Your task to perform on an android device: turn vacation reply on in the gmail app Image 0: 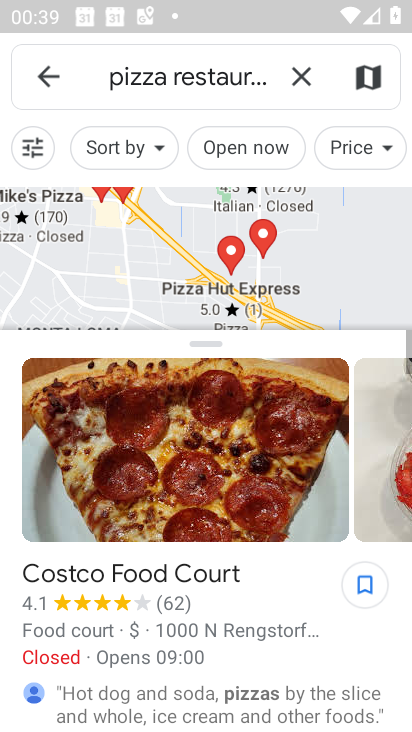
Step 0: press home button
Your task to perform on an android device: turn vacation reply on in the gmail app Image 1: 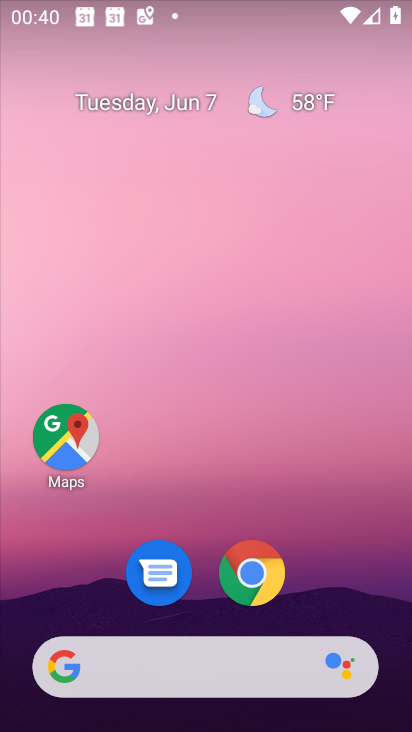
Step 1: drag from (357, 627) to (115, 14)
Your task to perform on an android device: turn vacation reply on in the gmail app Image 2: 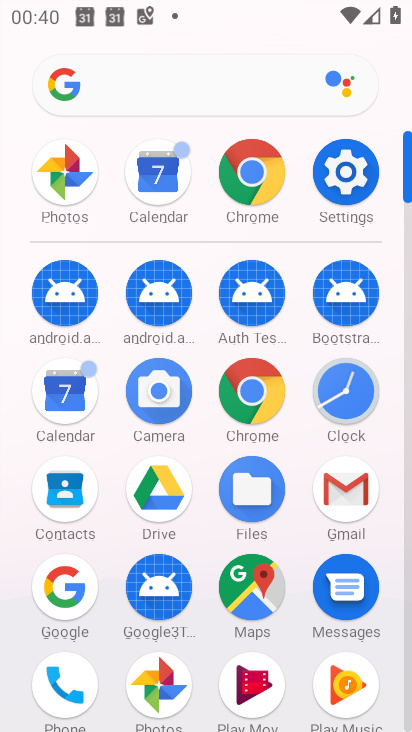
Step 2: click (334, 523)
Your task to perform on an android device: turn vacation reply on in the gmail app Image 3: 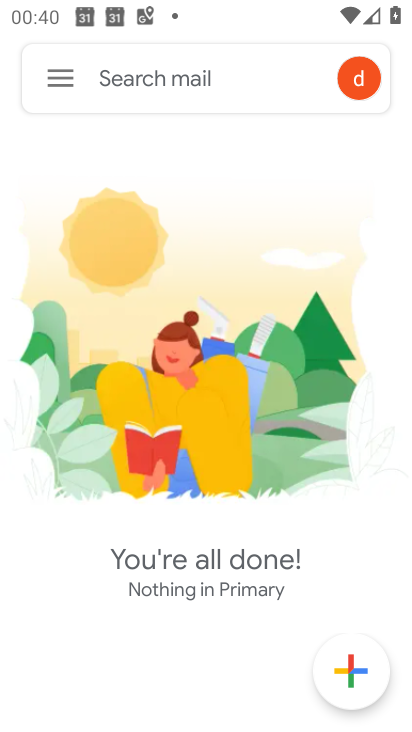
Step 3: click (45, 91)
Your task to perform on an android device: turn vacation reply on in the gmail app Image 4: 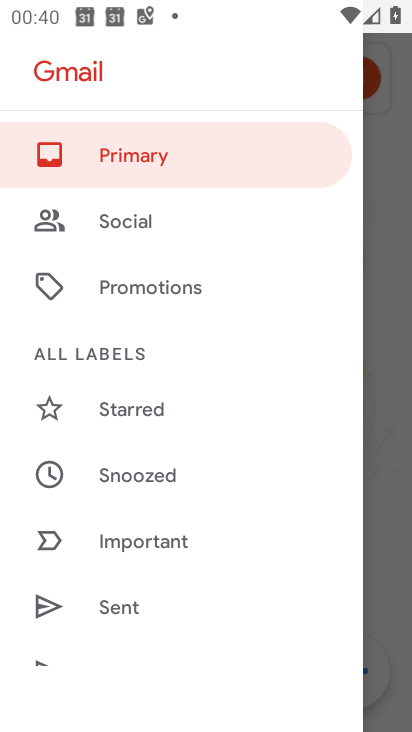
Step 4: drag from (186, 554) to (197, 8)
Your task to perform on an android device: turn vacation reply on in the gmail app Image 5: 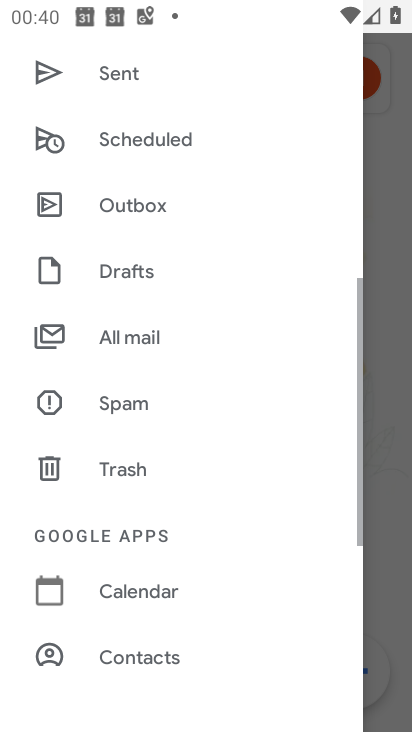
Step 5: drag from (214, 336) to (196, 3)
Your task to perform on an android device: turn vacation reply on in the gmail app Image 6: 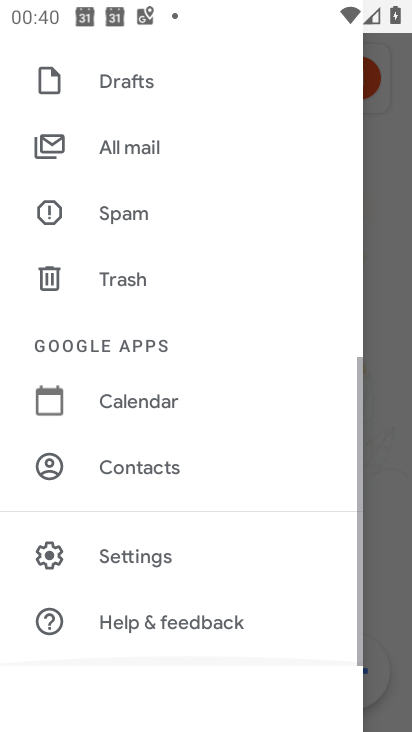
Step 6: click (140, 40)
Your task to perform on an android device: turn vacation reply on in the gmail app Image 7: 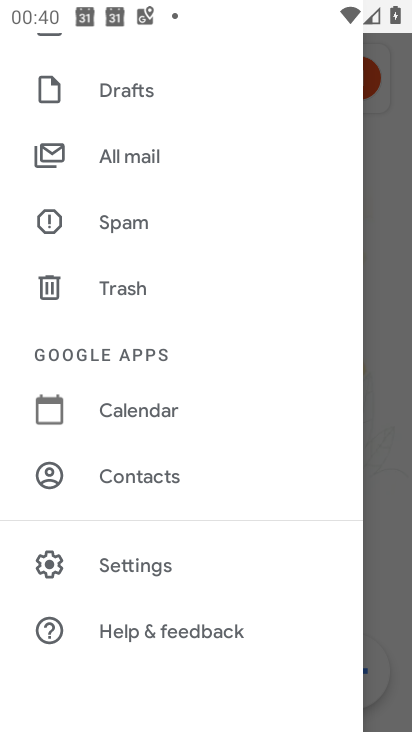
Step 7: click (170, 559)
Your task to perform on an android device: turn vacation reply on in the gmail app Image 8: 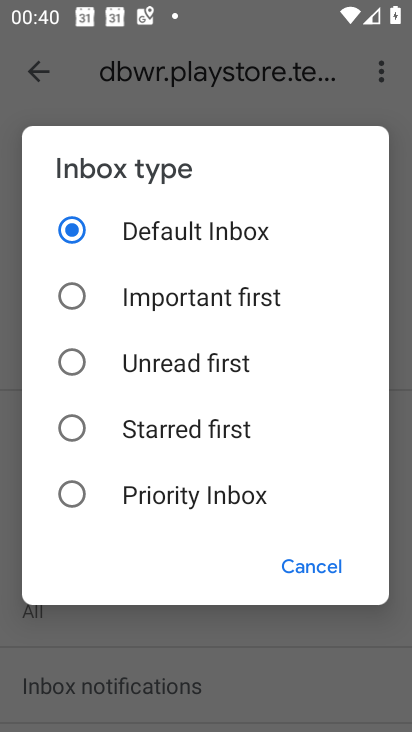
Step 8: click (326, 595)
Your task to perform on an android device: turn vacation reply on in the gmail app Image 9: 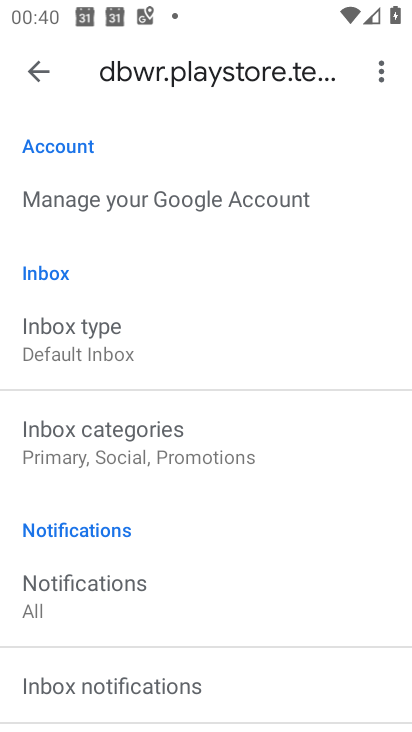
Step 9: drag from (338, 652) to (268, 168)
Your task to perform on an android device: turn vacation reply on in the gmail app Image 10: 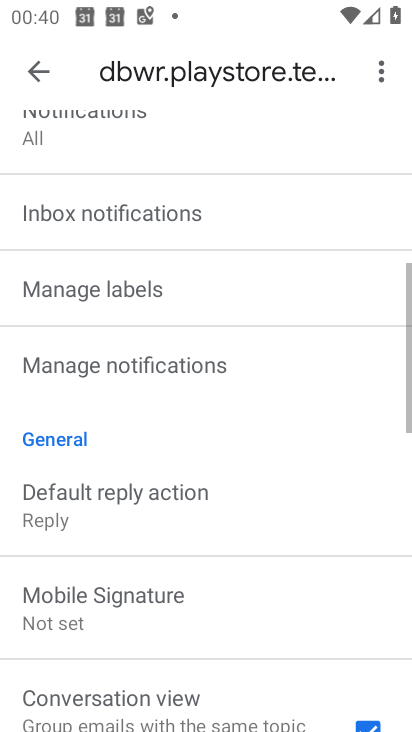
Step 10: drag from (295, 466) to (238, 185)
Your task to perform on an android device: turn vacation reply on in the gmail app Image 11: 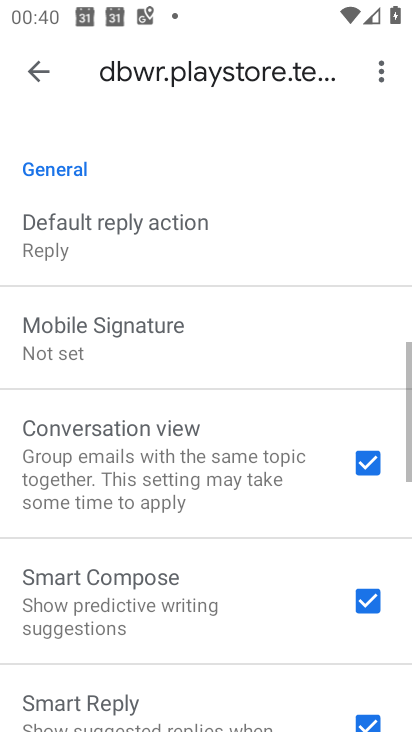
Step 11: drag from (282, 526) to (212, 65)
Your task to perform on an android device: turn vacation reply on in the gmail app Image 12: 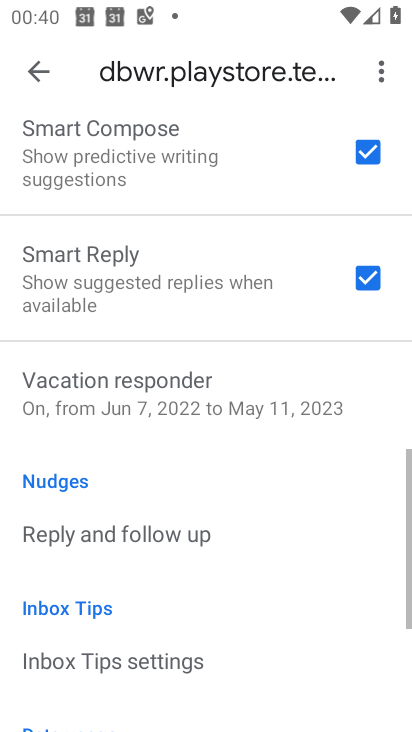
Step 12: drag from (291, 487) to (234, 224)
Your task to perform on an android device: turn vacation reply on in the gmail app Image 13: 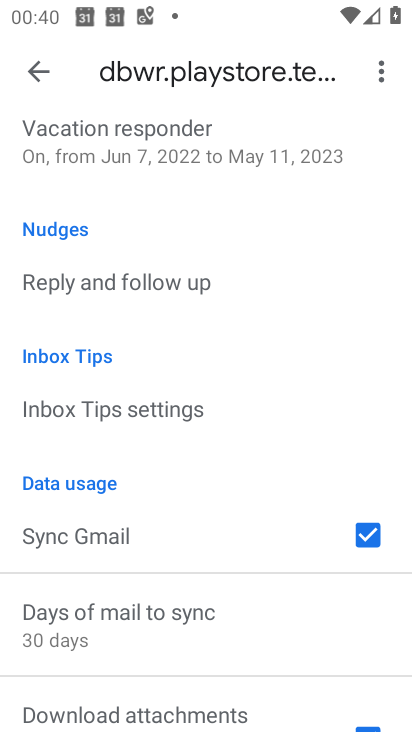
Step 13: click (204, 154)
Your task to perform on an android device: turn vacation reply on in the gmail app Image 14: 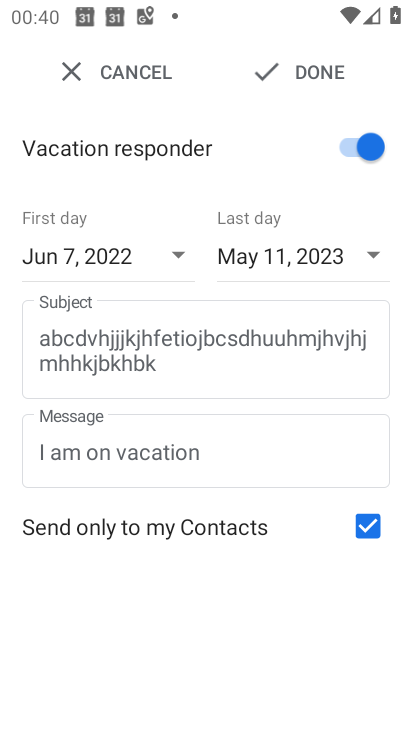
Step 14: click (351, 68)
Your task to perform on an android device: turn vacation reply on in the gmail app Image 15: 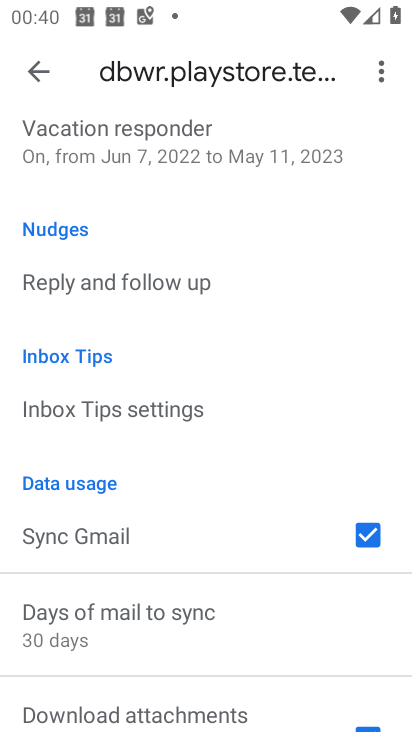
Step 15: task complete